Your task to perform on an android device: change alarm snooze length Image 0: 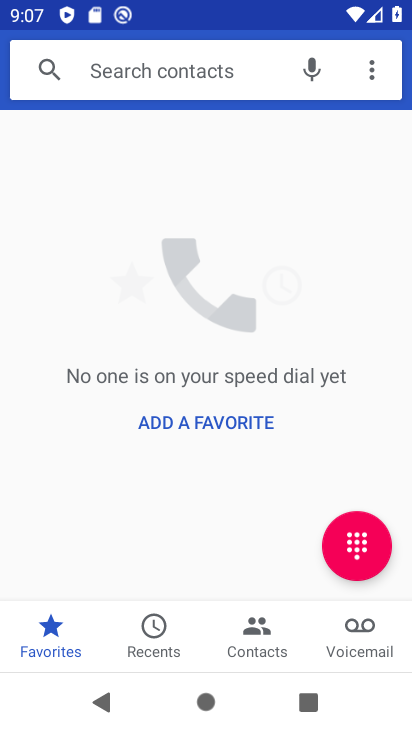
Step 0: press home button
Your task to perform on an android device: change alarm snooze length Image 1: 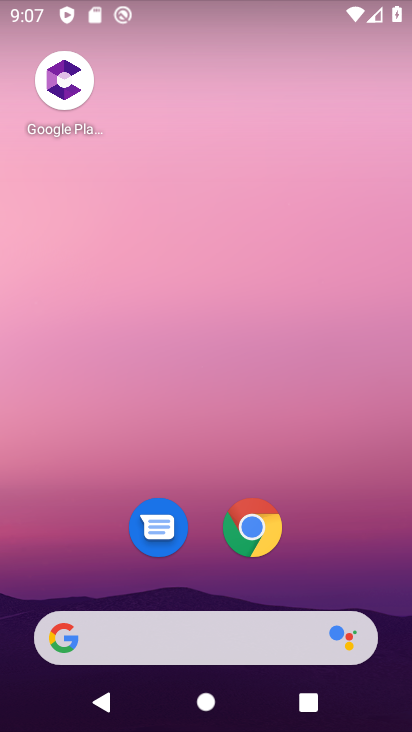
Step 1: drag from (390, 636) to (314, 172)
Your task to perform on an android device: change alarm snooze length Image 2: 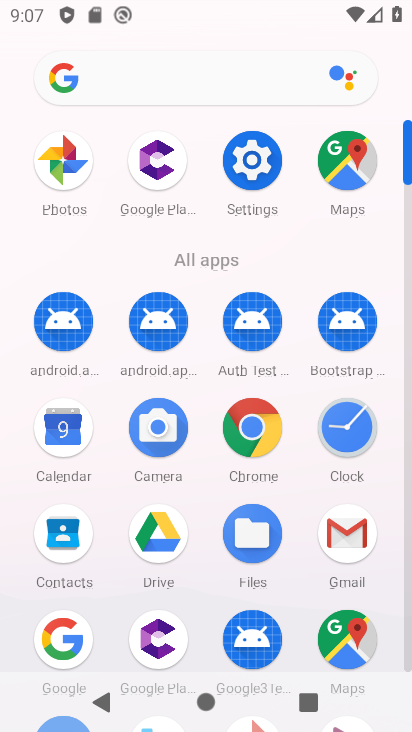
Step 2: click (348, 426)
Your task to perform on an android device: change alarm snooze length Image 3: 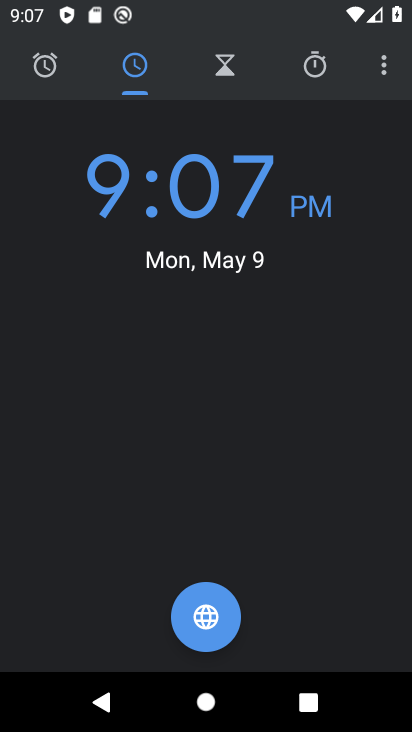
Step 3: click (384, 67)
Your task to perform on an android device: change alarm snooze length Image 4: 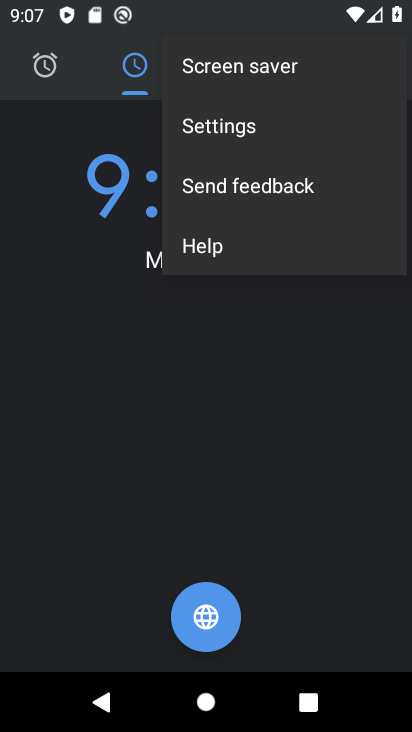
Step 4: click (207, 122)
Your task to perform on an android device: change alarm snooze length Image 5: 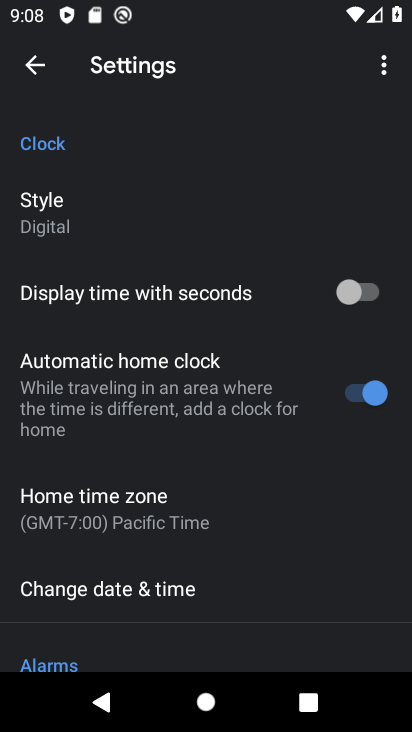
Step 5: drag from (291, 585) to (280, 101)
Your task to perform on an android device: change alarm snooze length Image 6: 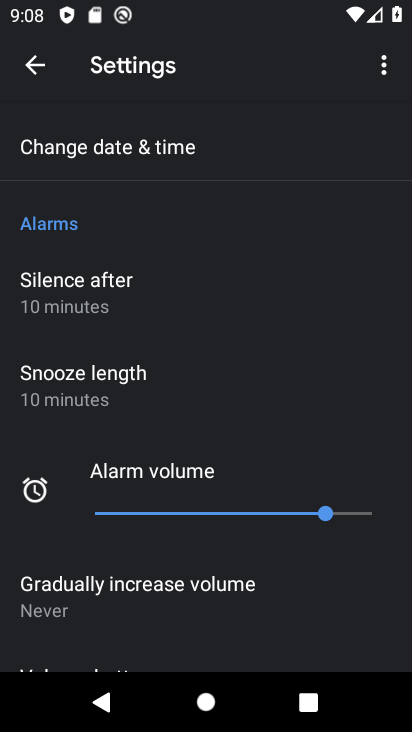
Step 6: click (64, 369)
Your task to perform on an android device: change alarm snooze length Image 7: 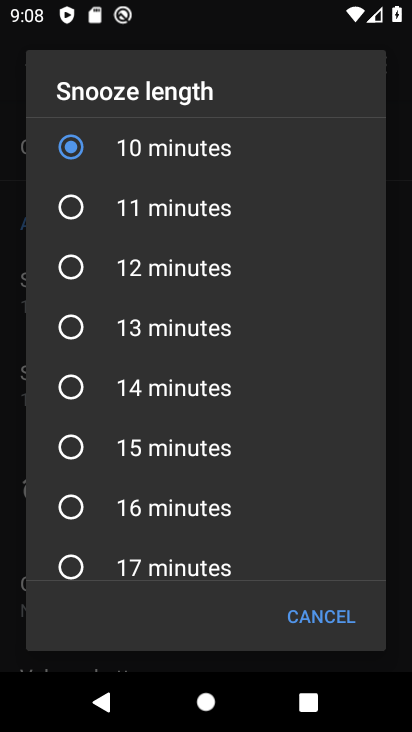
Step 7: click (70, 449)
Your task to perform on an android device: change alarm snooze length Image 8: 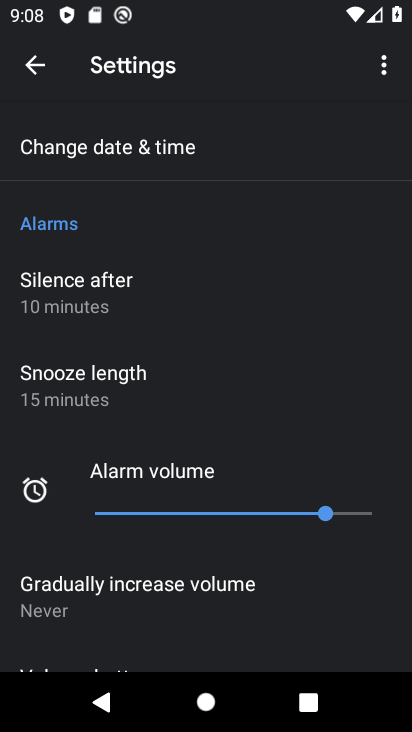
Step 8: task complete